Your task to perform on an android device: star an email in the gmail app Image 0: 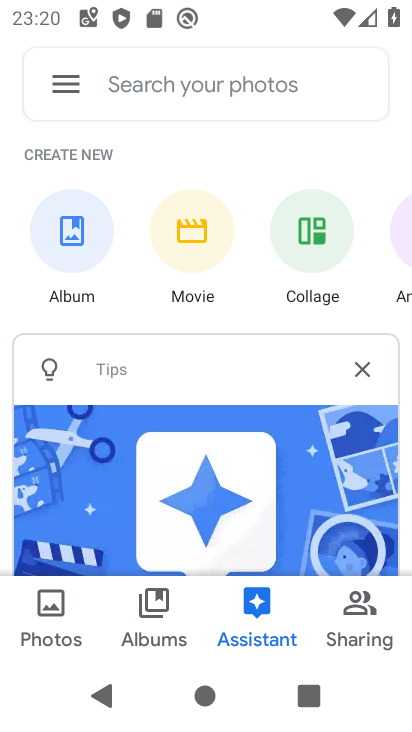
Step 0: press home button
Your task to perform on an android device: star an email in the gmail app Image 1: 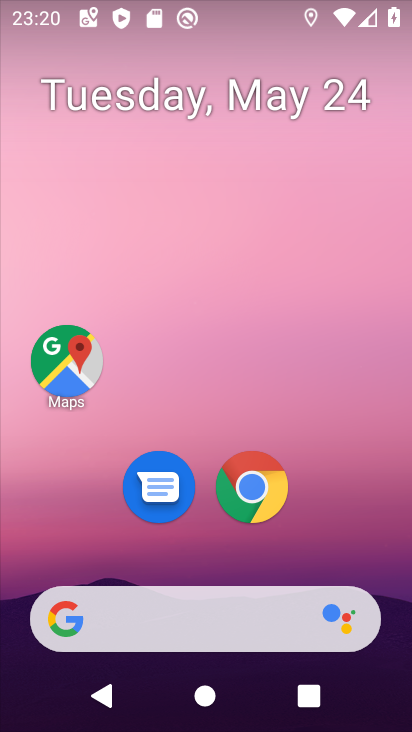
Step 1: drag from (189, 492) to (256, 57)
Your task to perform on an android device: star an email in the gmail app Image 2: 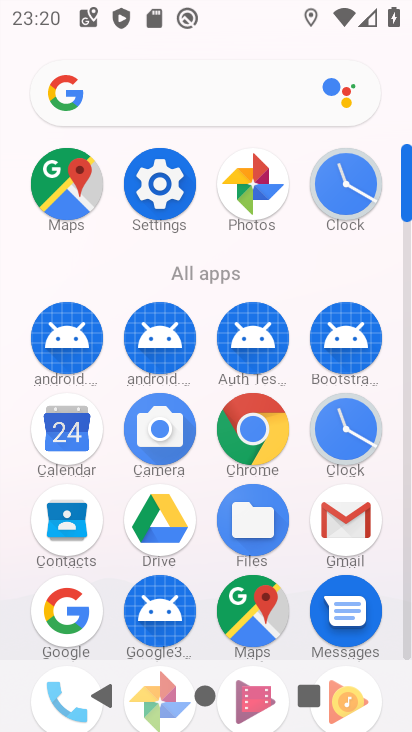
Step 2: drag from (208, 555) to (231, 166)
Your task to perform on an android device: star an email in the gmail app Image 3: 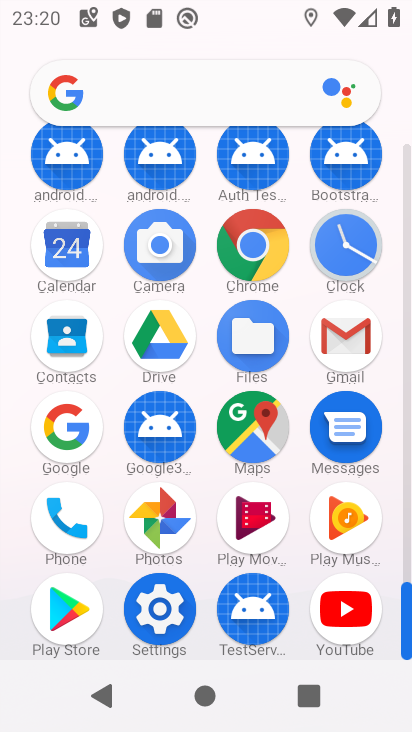
Step 3: click (339, 343)
Your task to perform on an android device: star an email in the gmail app Image 4: 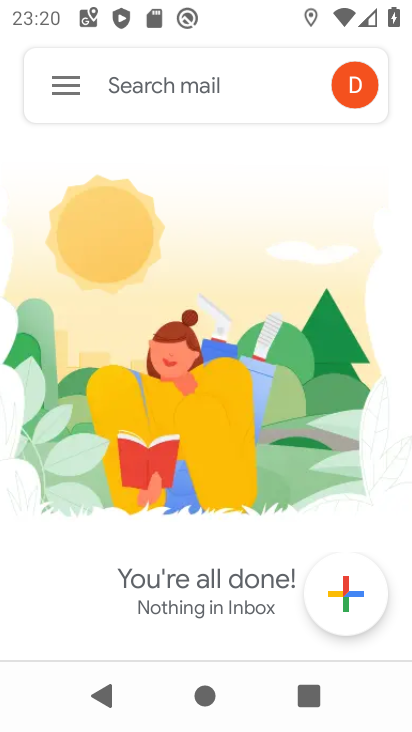
Step 4: click (70, 88)
Your task to perform on an android device: star an email in the gmail app Image 5: 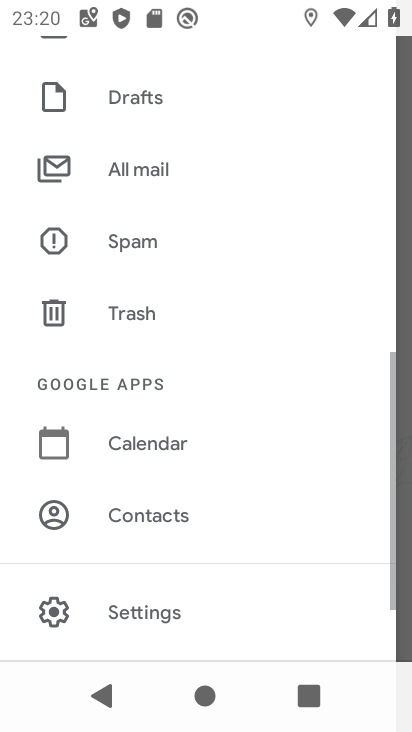
Step 5: click (140, 175)
Your task to perform on an android device: star an email in the gmail app Image 6: 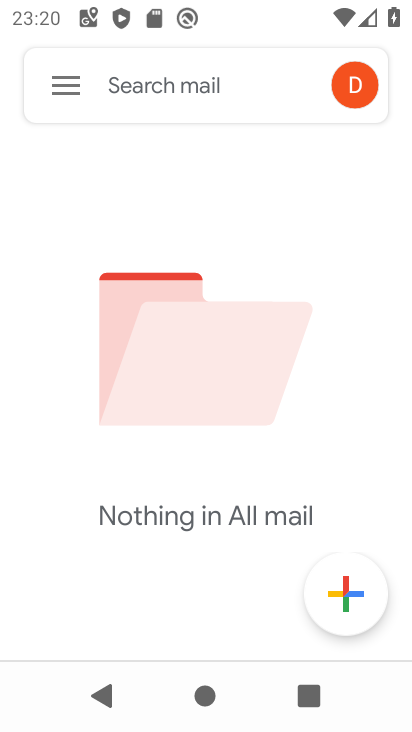
Step 6: task complete